Your task to perform on an android device: Show me popular games on the Play Store Image 0: 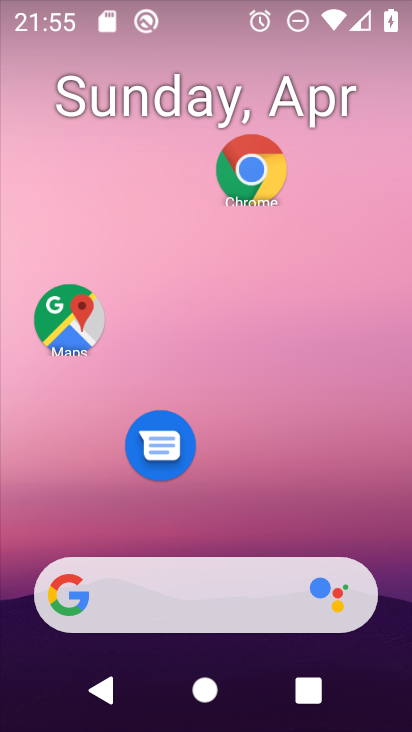
Step 0: drag from (237, 394) to (205, 60)
Your task to perform on an android device: Show me popular games on the Play Store Image 1: 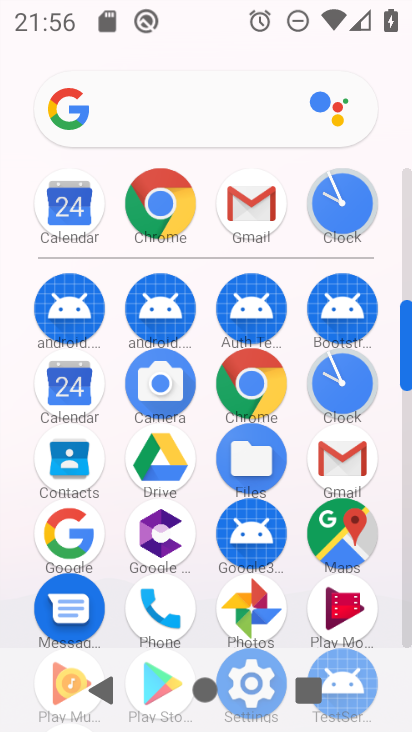
Step 1: drag from (199, 575) to (201, 396)
Your task to perform on an android device: Show me popular games on the Play Store Image 2: 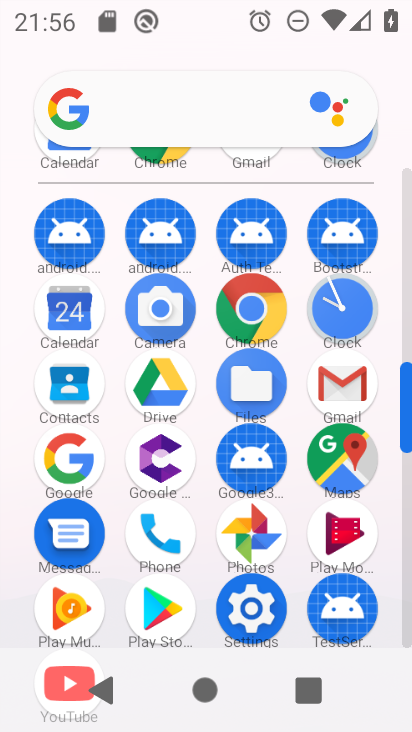
Step 2: click (161, 610)
Your task to perform on an android device: Show me popular games on the Play Store Image 3: 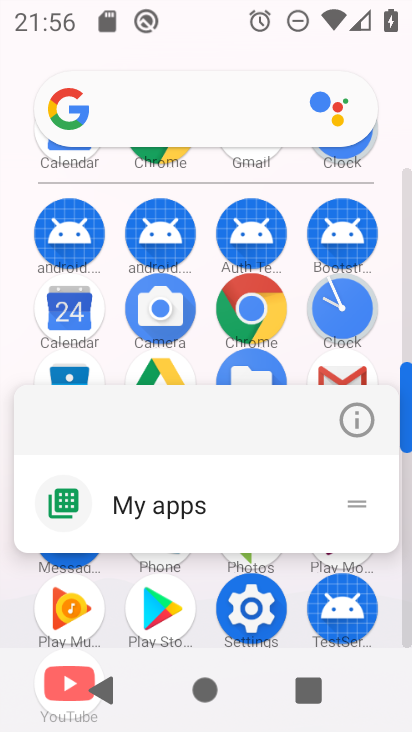
Step 3: click (161, 610)
Your task to perform on an android device: Show me popular games on the Play Store Image 4: 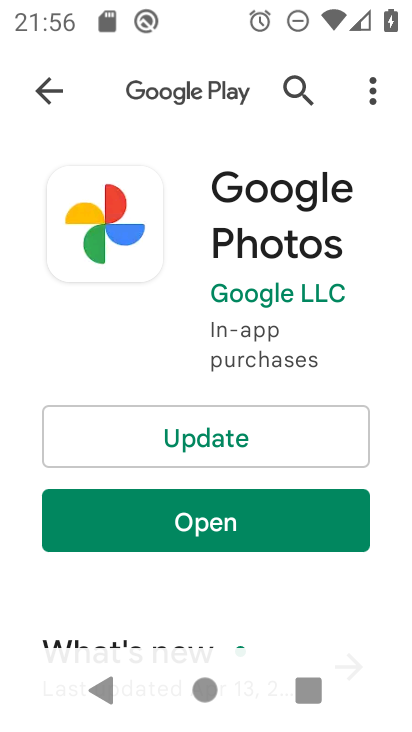
Step 4: press back button
Your task to perform on an android device: Show me popular games on the Play Store Image 5: 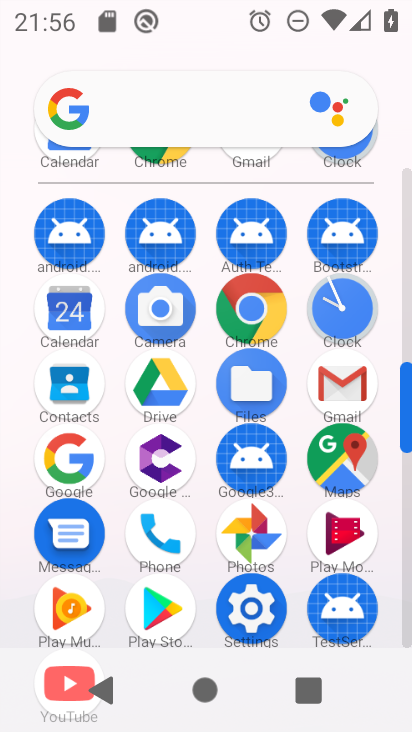
Step 5: click (171, 621)
Your task to perform on an android device: Show me popular games on the Play Store Image 6: 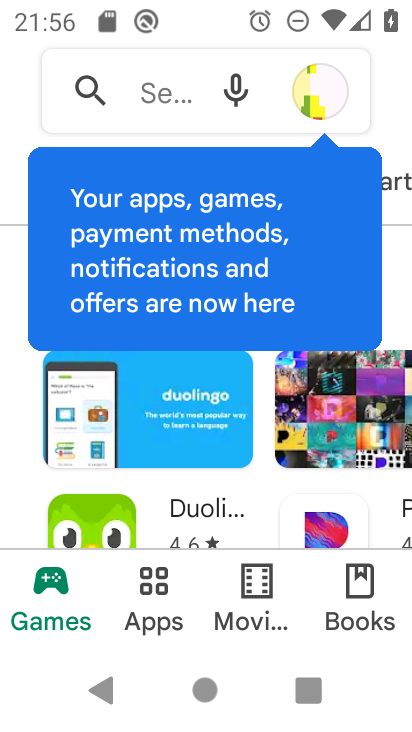
Step 6: click (53, 600)
Your task to perform on an android device: Show me popular games on the Play Store Image 7: 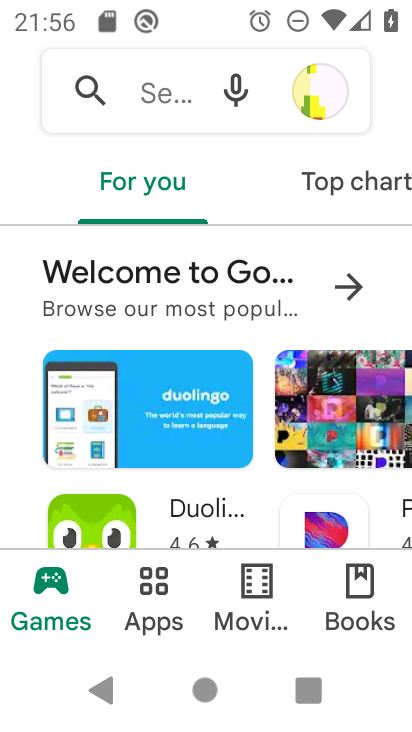
Step 7: task complete